Your task to perform on an android device: Open Yahoo.com Image 0: 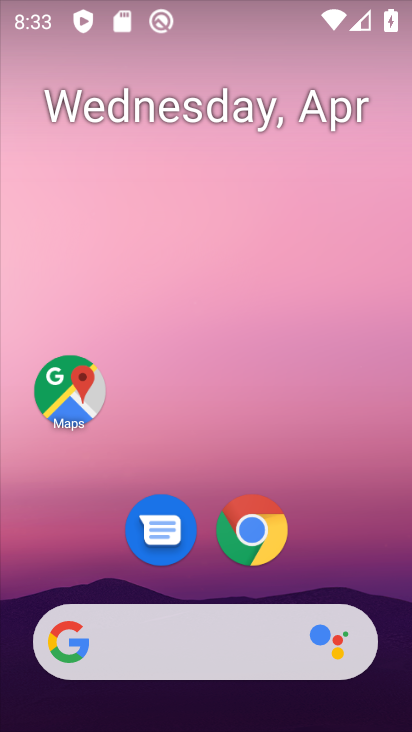
Step 0: click (270, 528)
Your task to perform on an android device: Open Yahoo.com Image 1: 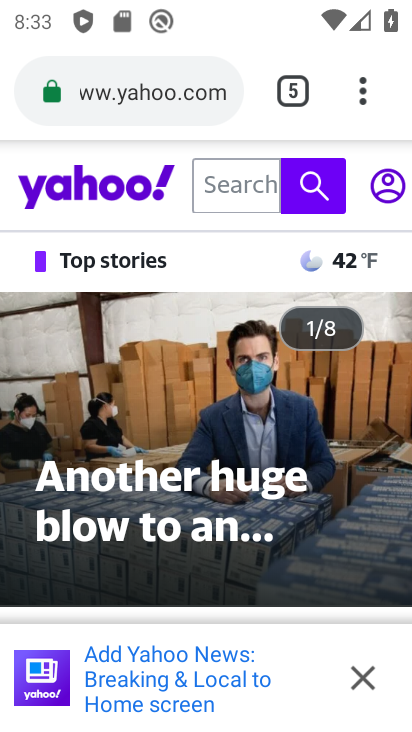
Step 1: task complete